Your task to perform on an android device: Open Amazon Image 0: 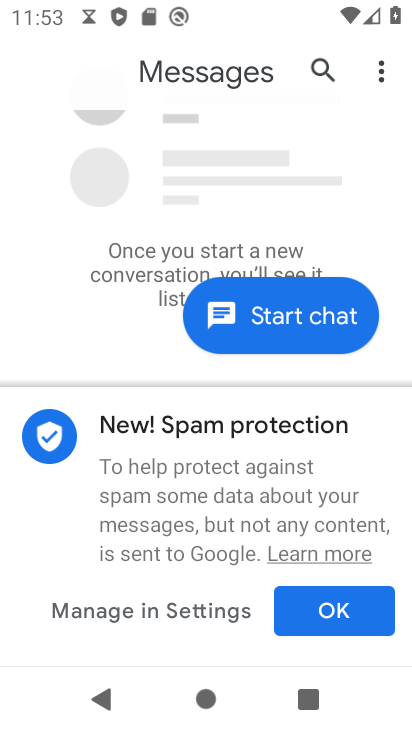
Step 0: drag from (324, 547) to (411, 485)
Your task to perform on an android device: Open Amazon Image 1: 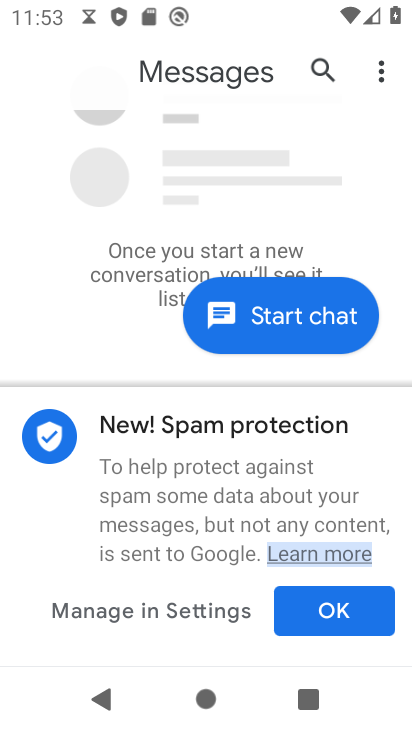
Step 1: press home button
Your task to perform on an android device: Open Amazon Image 2: 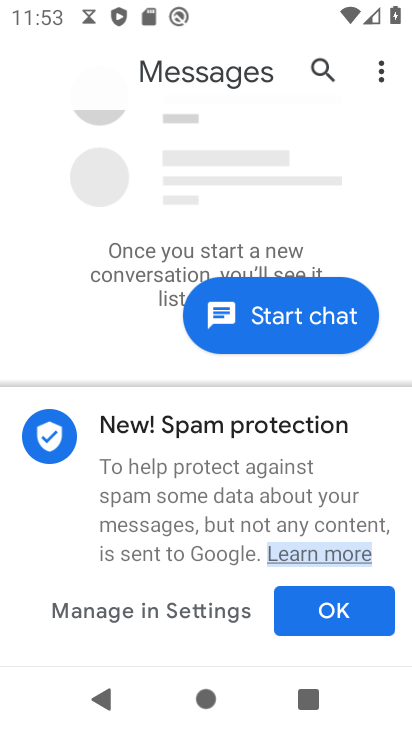
Step 2: click (411, 485)
Your task to perform on an android device: Open Amazon Image 3: 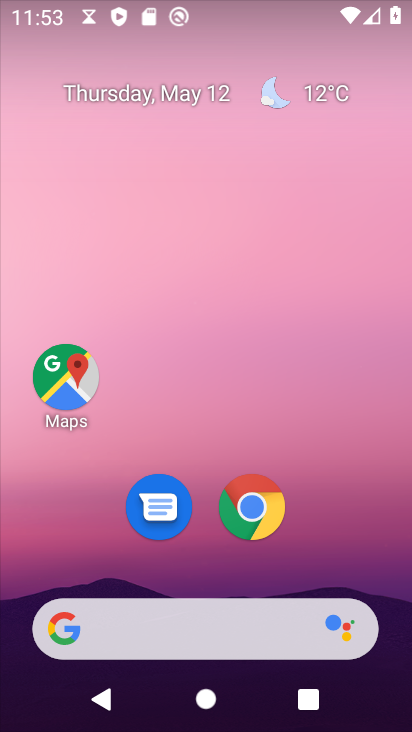
Step 3: click (258, 528)
Your task to perform on an android device: Open Amazon Image 4: 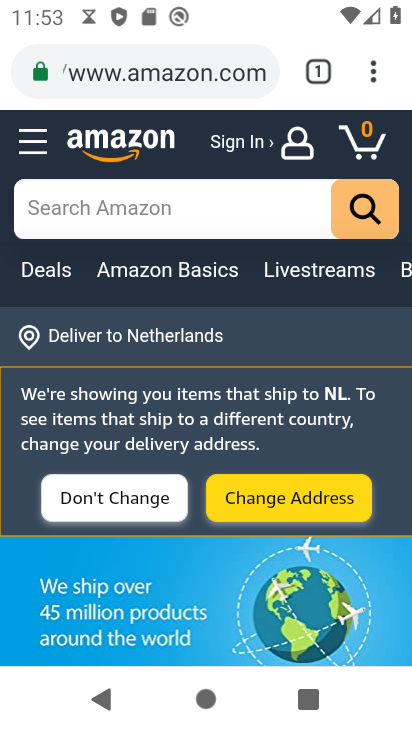
Step 4: task complete